Your task to perform on an android device: check out phone information Image 0: 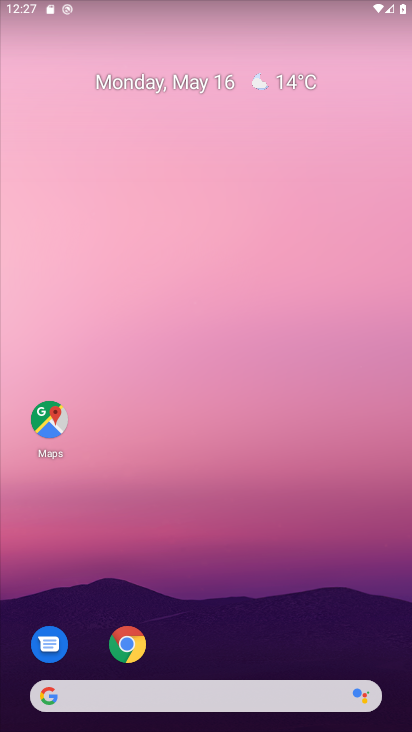
Step 0: drag from (339, 631) to (350, 107)
Your task to perform on an android device: check out phone information Image 1: 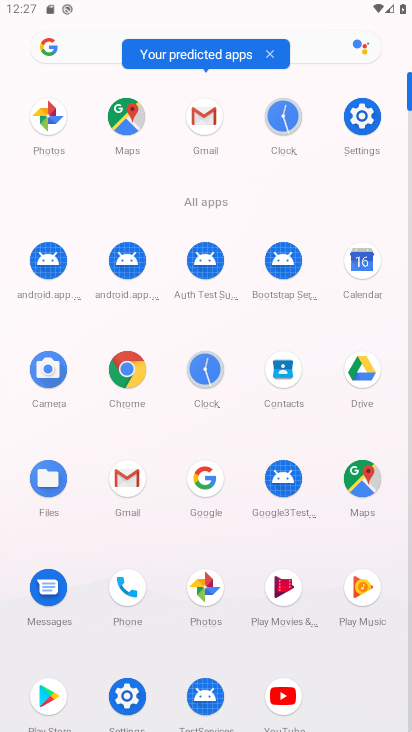
Step 1: click (360, 100)
Your task to perform on an android device: check out phone information Image 2: 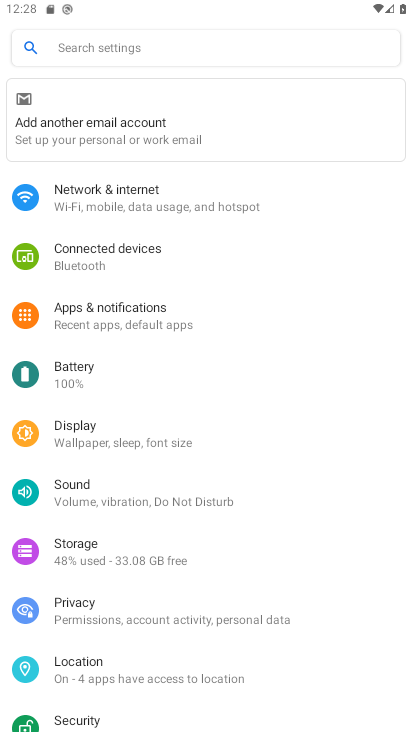
Step 2: click (135, 669)
Your task to perform on an android device: check out phone information Image 3: 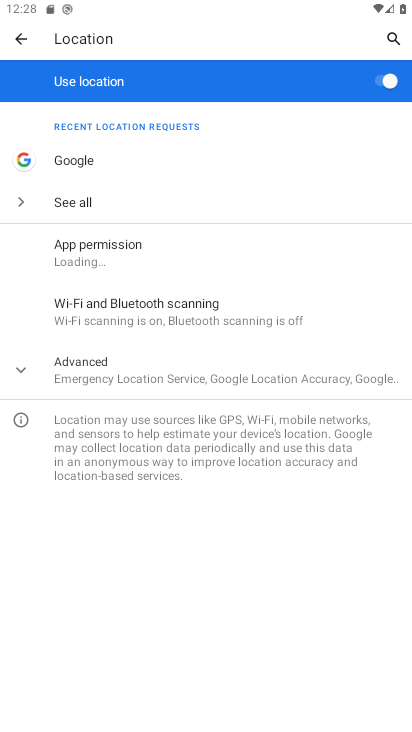
Step 3: click (114, 248)
Your task to perform on an android device: check out phone information Image 4: 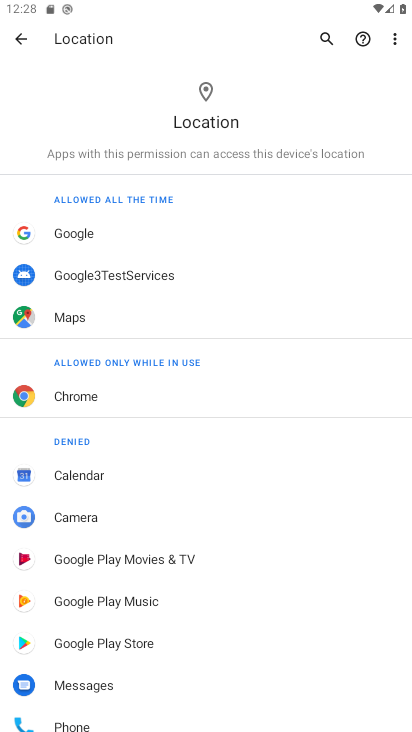
Step 4: drag from (285, 591) to (280, 317)
Your task to perform on an android device: check out phone information Image 5: 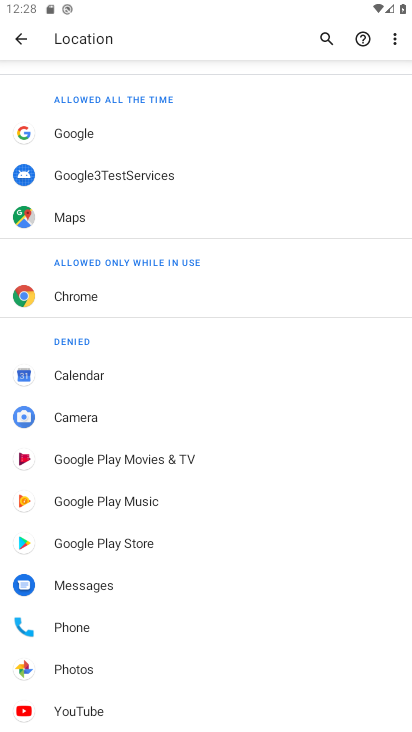
Step 5: click (85, 677)
Your task to perform on an android device: check out phone information Image 6: 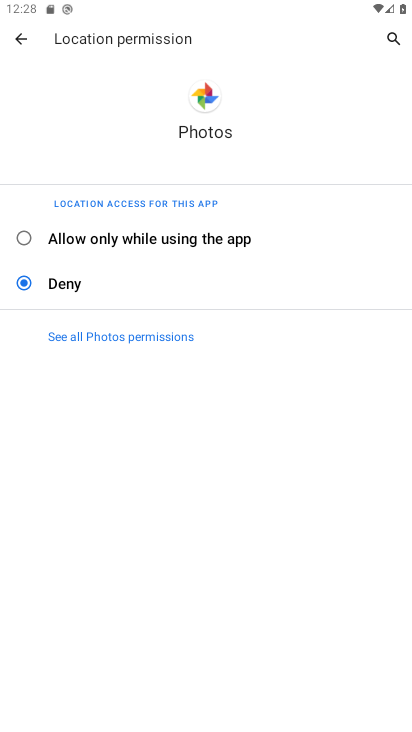
Step 6: click (23, 250)
Your task to perform on an android device: check out phone information Image 7: 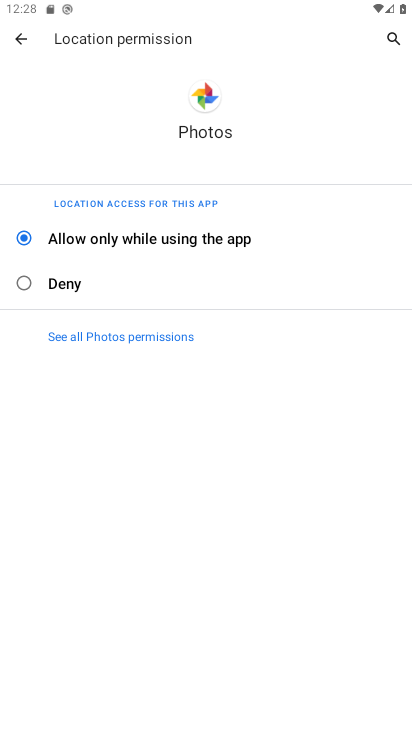
Step 7: task complete